Your task to perform on an android device: See recent photos Image 0: 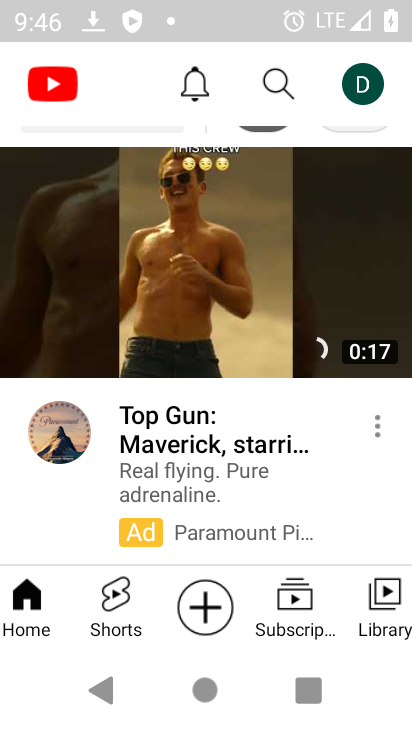
Step 0: drag from (319, 495) to (387, 150)
Your task to perform on an android device: See recent photos Image 1: 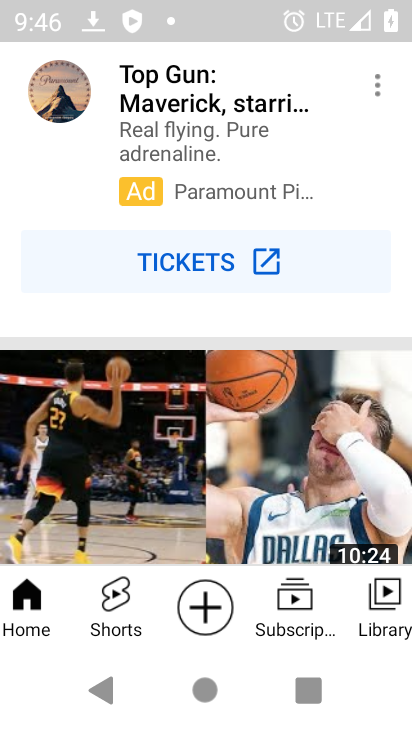
Step 1: drag from (235, 430) to (370, 120)
Your task to perform on an android device: See recent photos Image 2: 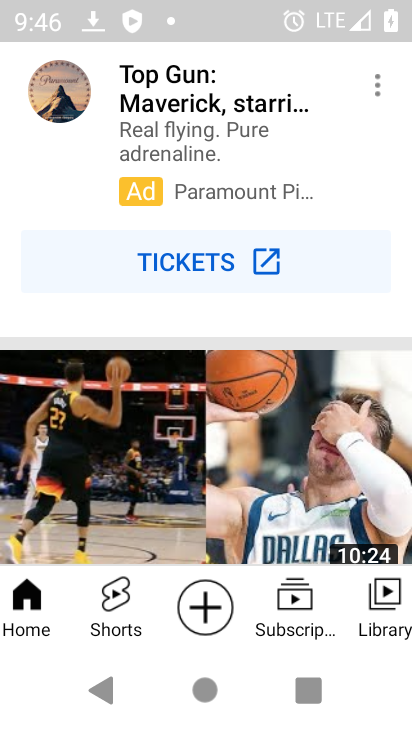
Step 2: press home button
Your task to perform on an android device: See recent photos Image 3: 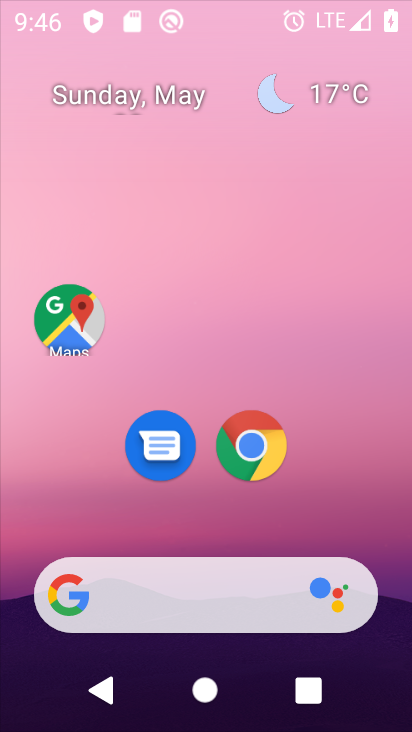
Step 3: drag from (212, 482) to (410, 60)
Your task to perform on an android device: See recent photos Image 4: 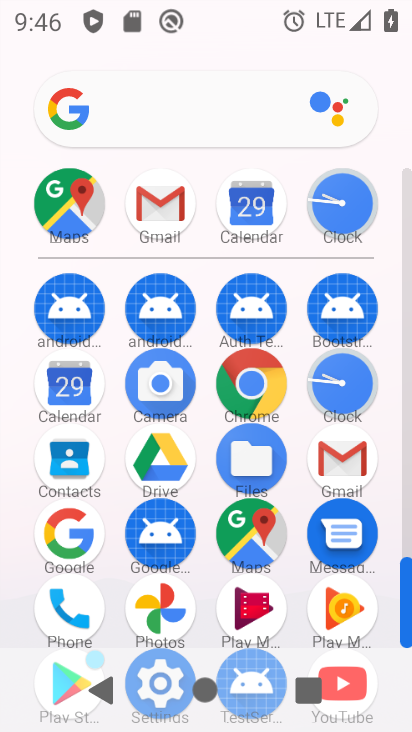
Step 4: click (169, 608)
Your task to perform on an android device: See recent photos Image 5: 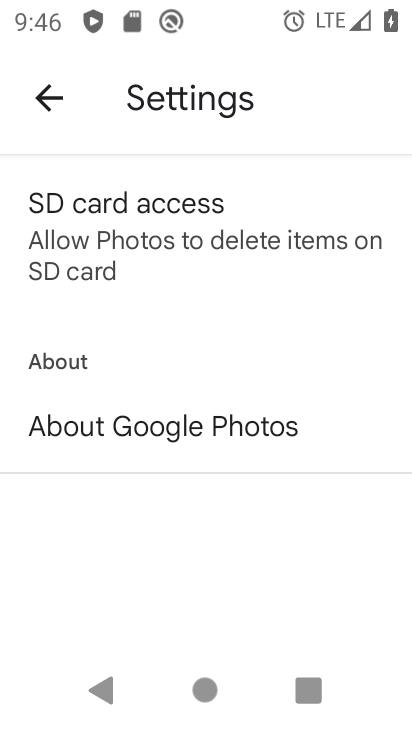
Step 5: click (37, 98)
Your task to perform on an android device: See recent photos Image 6: 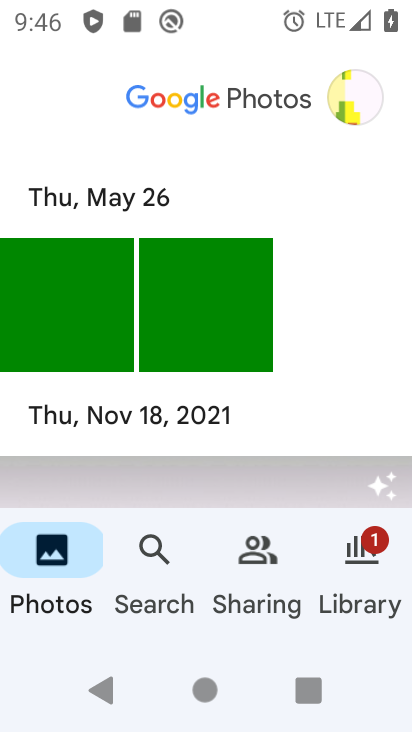
Step 6: click (63, 319)
Your task to perform on an android device: See recent photos Image 7: 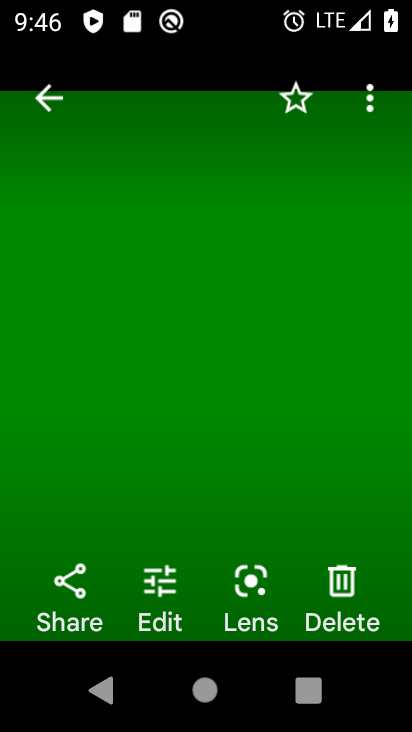
Step 7: task complete